Your task to perform on an android device: make emails show in primary in the gmail app Image 0: 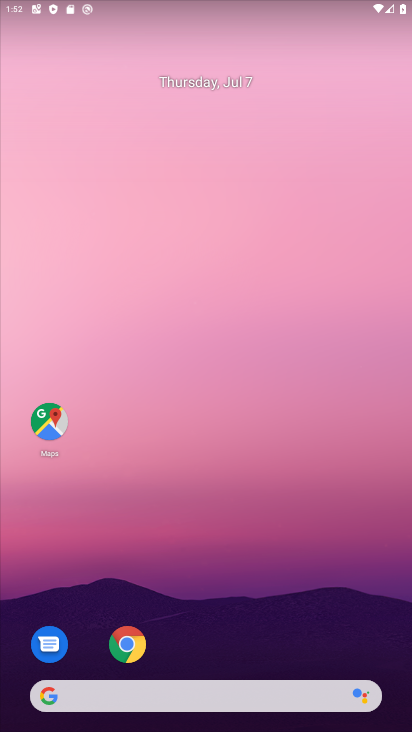
Step 0: drag from (248, 657) to (201, 35)
Your task to perform on an android device: make emails show in primary in the gmail app Image 1: 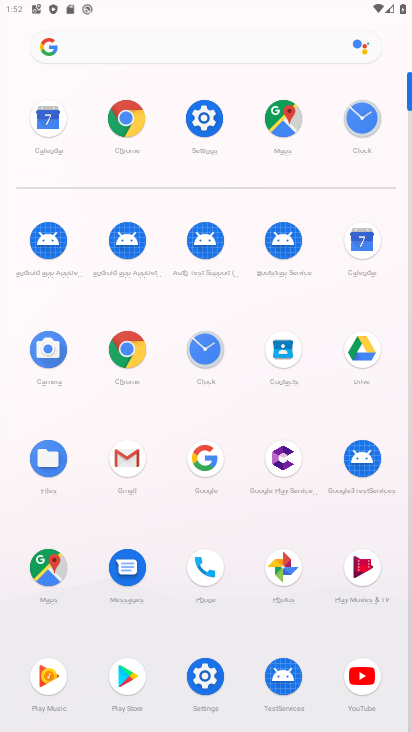
Step 1: click (138, 460)
Your task to perform on an android device: make emails show in primary in the gmail app Image 2: 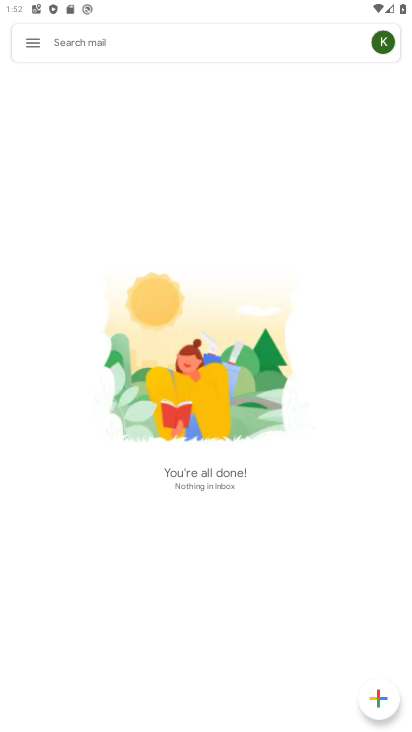
Step 2: click (28, 48)
Your task to perform on an android device: make emails show in primary in the gmail app Image 3: 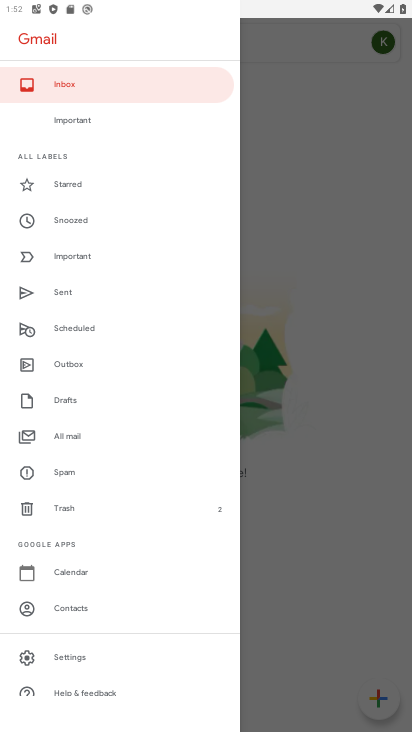
Step 3: click (88, 650)
Your task to perform on an android device: make emails show in primary in the gmail app Image 4: 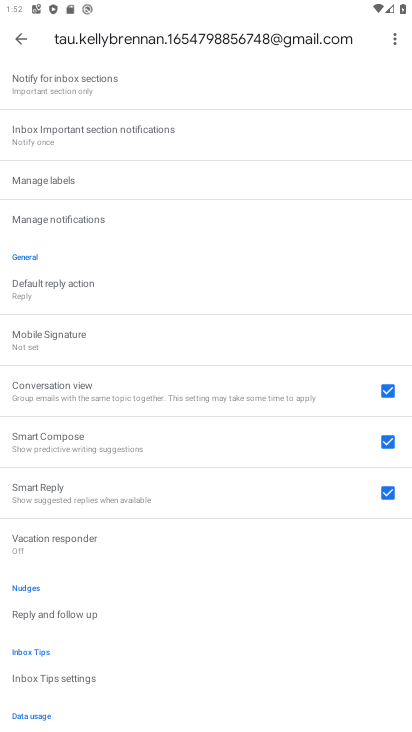
Step 4: drag from (99, 99) to (126, 458)
Your task to perform on an android device: make emails show in primary in the gmail app Image 5: 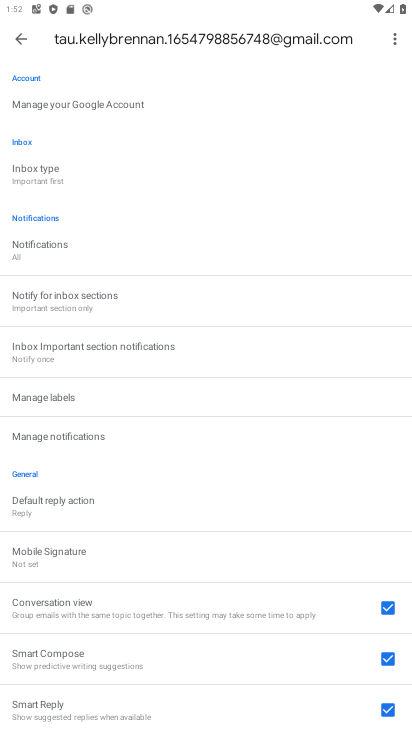
Step 5: click (60, 172)
Your task to perform on an android device: make emails show in primary in the gmail app Image 6: 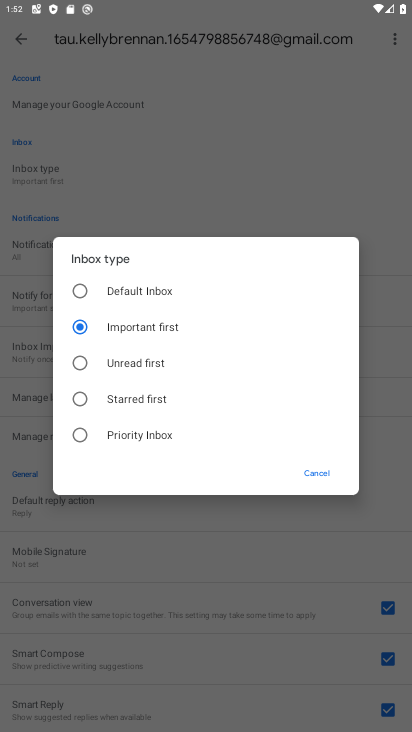
Step 6: click (119, 289)
Your task to perform on an android device: make emails show in primary in the gmail app Image 7: 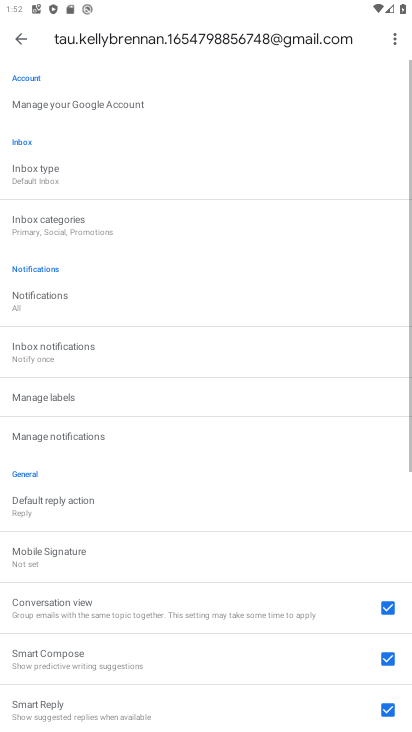
Step 7: click (63, 229)
Your task to perform on an android device: make emails show in primary in the gmail app Image 8: 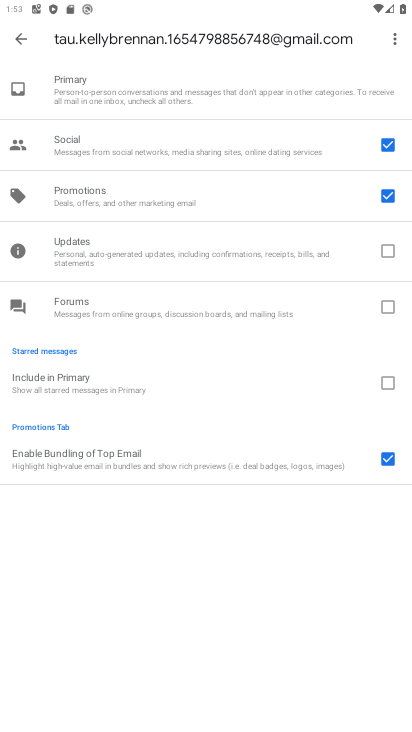
Step 8: click (387, 145)
Your task to perform on an android device: make emails show in primary in the gmail app Image 9: 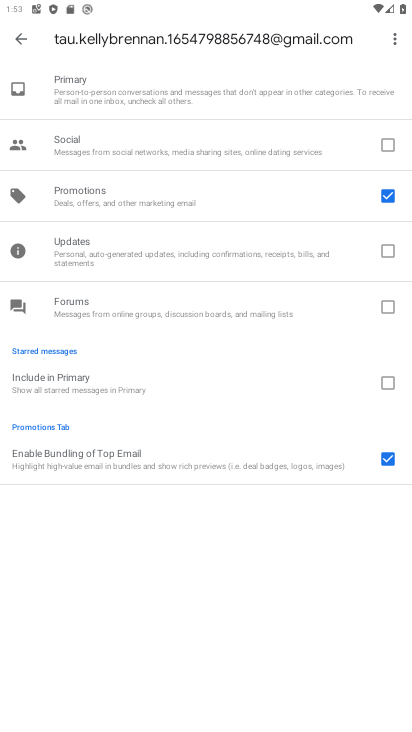
Step 9: click (389, 197)
Your task to perform on an android device: make emails show in primary in the gmail app Image 10: 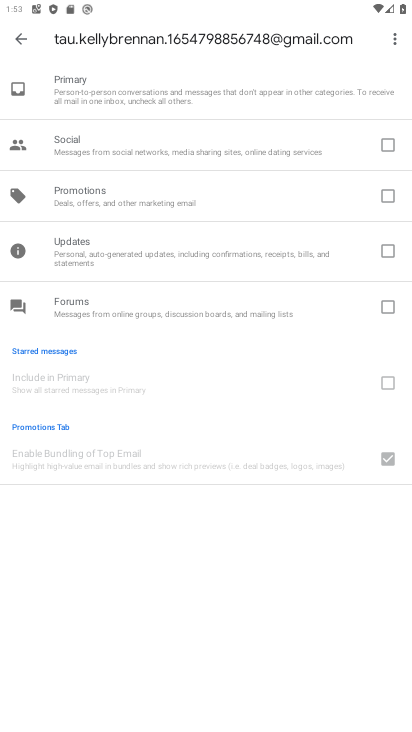
Step 10: click (280, 98)
Your task to perform on an android device: make emails show in primary in the gmail app Image 11: 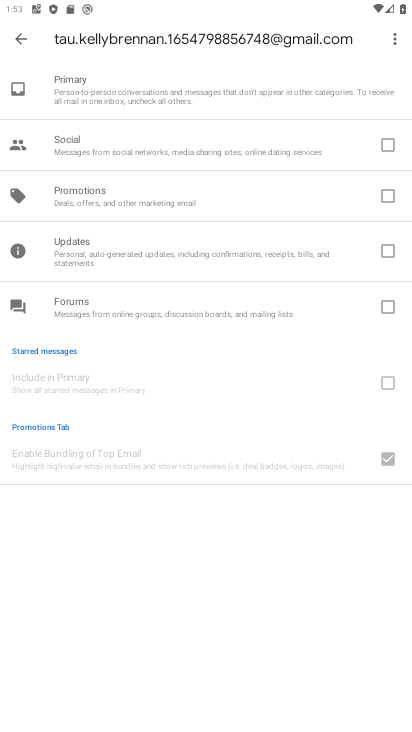
Step 11: task complete